Your task to perform on an android device: turn on javascript in the chrome app Image 0: 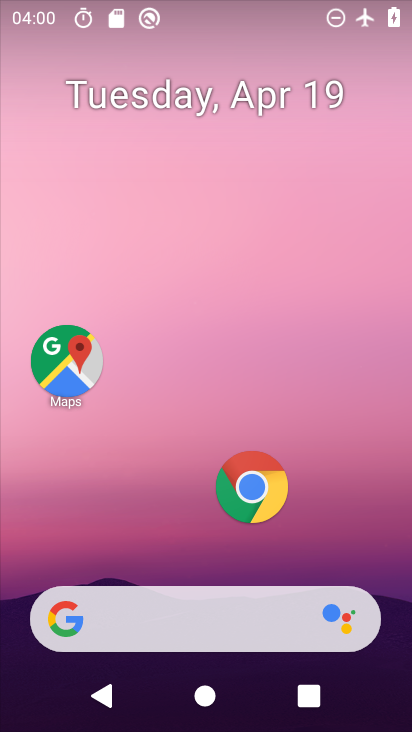
Step 0: click (55, 374)
Your task to perform on an android device: turn on javascript in the chrome app Image 1: 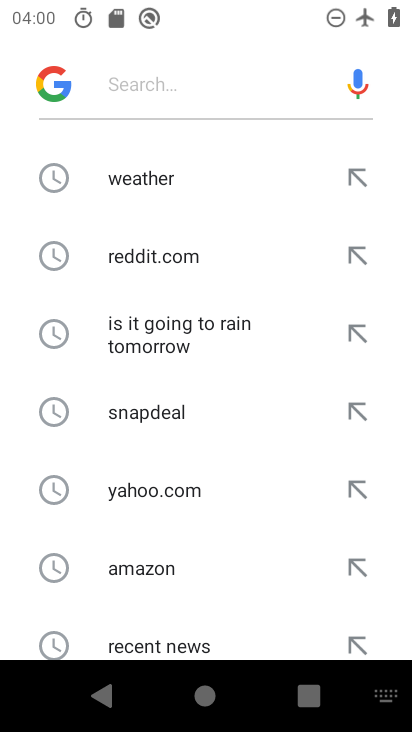
Step 1: press home button
Your task to perform on an android device: turn on javascript in the chrome app Image 2: 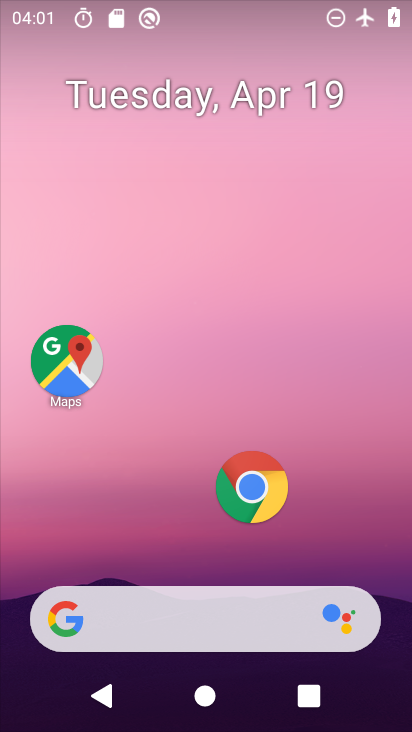
Step 2: click (260, 461)
Your task to perform on an android device: turn on javascript in the chrome app Image 3: 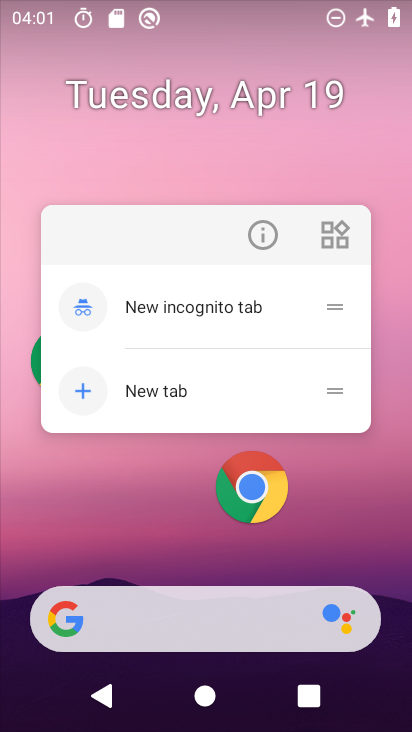
Step 3: click (249, 475)
Your task to perform on an android device: turn on javascript in the chrome app Image 4: 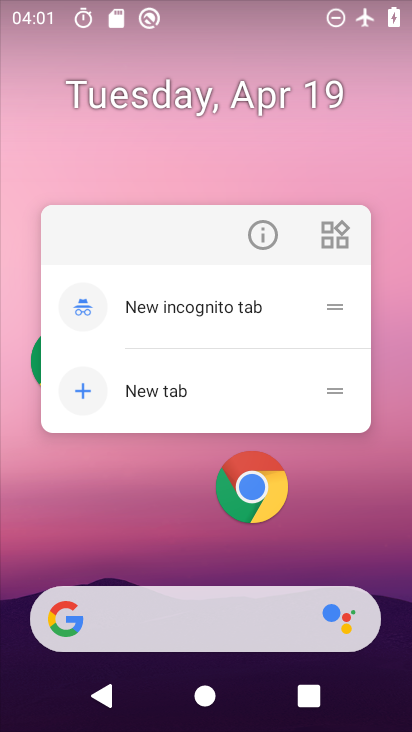
Step 4: click (243, 494)
Your task to perform on an android device: turn on javascript in the chrome app Image 5: 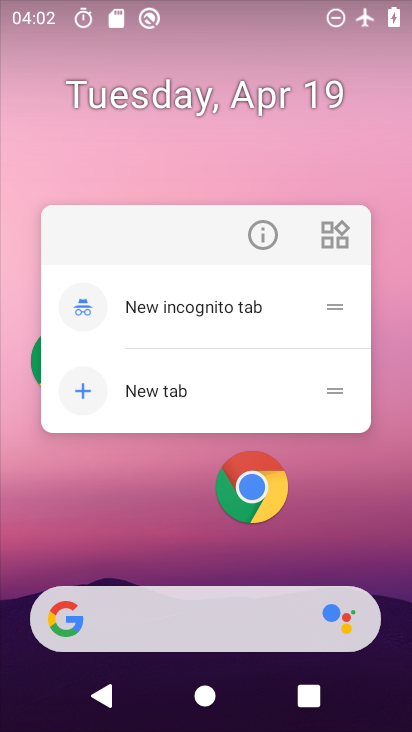
Step 5: click (251, 497)
Your task to perform on an android device: turn on javascript in the chrome app Image 6: 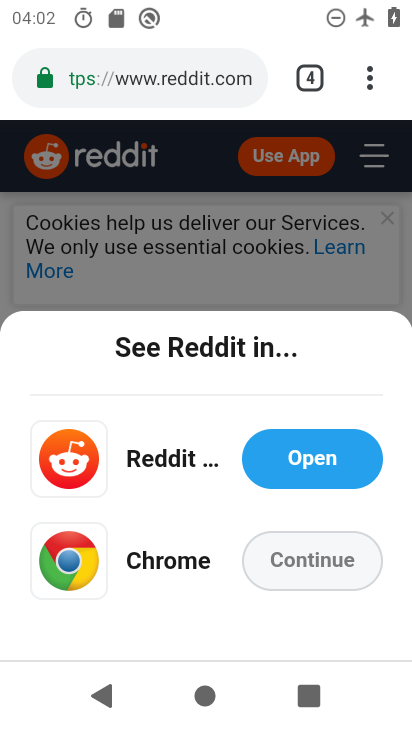
Step 6: drag from (367, 83) to (107, 548)
Your task to perform on an android device: turn on javascript in the chrome app Image 7: 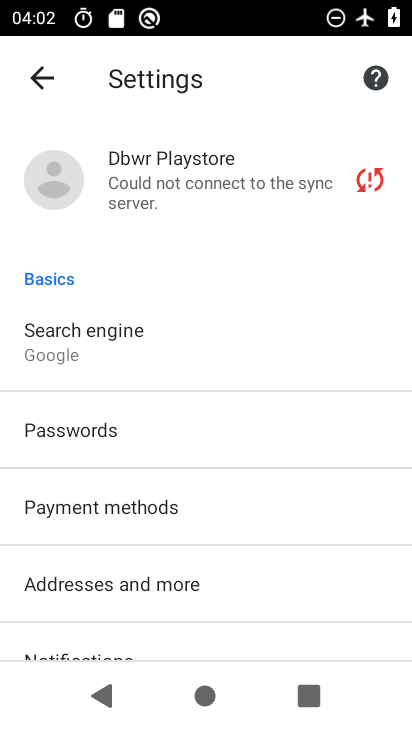
Step 7: drag from (119, 585) to (260, 55)
Your task to perform on an android device: turn on javascript in the chrome app Image 8: 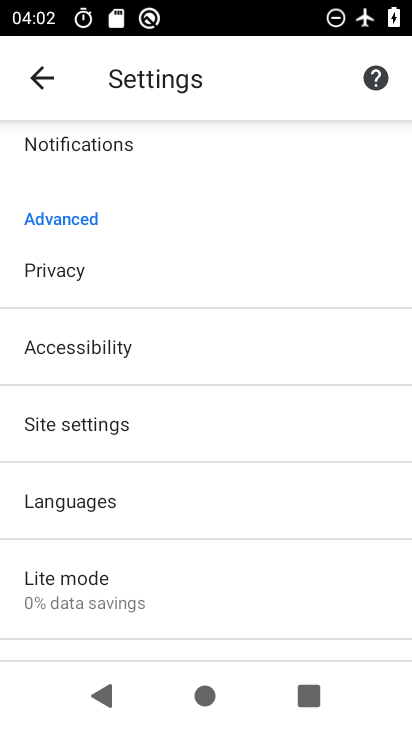
Step 8: click (95, 418)
Your task to perform on an android device: turn on javascript in the chrome app Image 9: 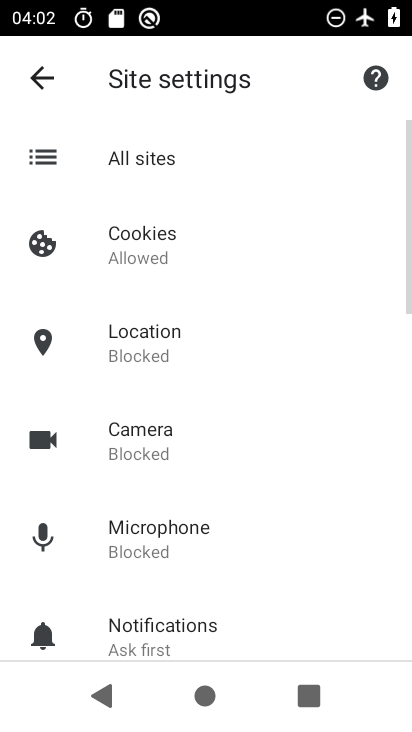
Step 9: drag from (185, 587) to (281, 117)
Your task to perform on an android device: turn on javascript in the chrome app Image 10: 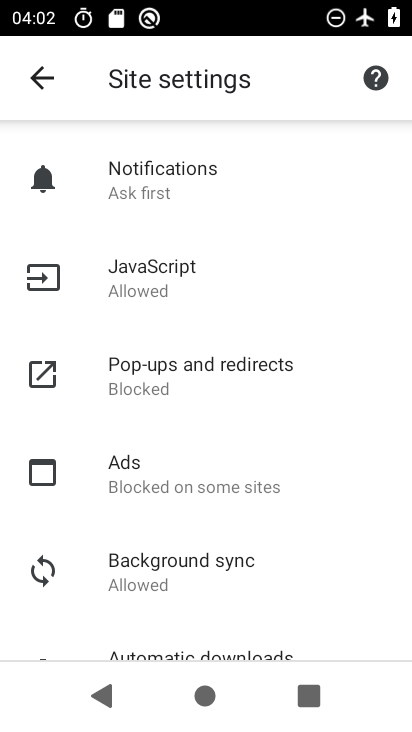
Step 10: click (157, 275)
Your task to perform on an android device: turn on javascript in the chrome app Image 11: 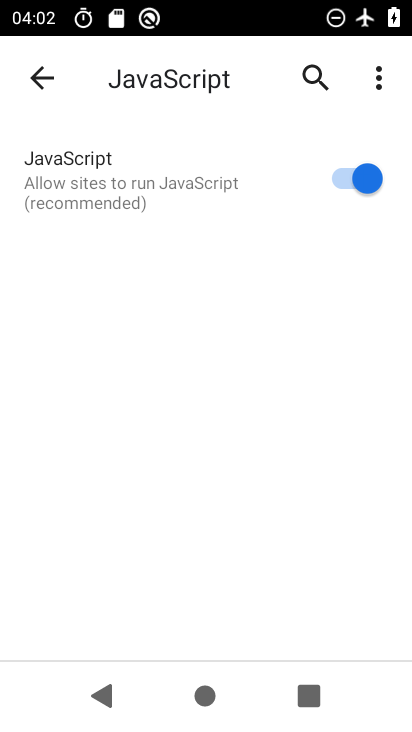
Step 11: task complete